Your task to perform on an android device: open a bookmark in the chrome app Image 0: 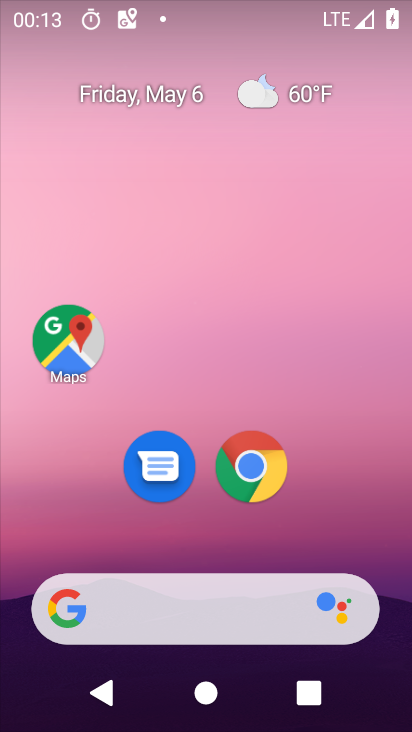
Step 0: click (247, 464)
Your task to perform on an android device: open a bookmark in the chrome app Image 1: 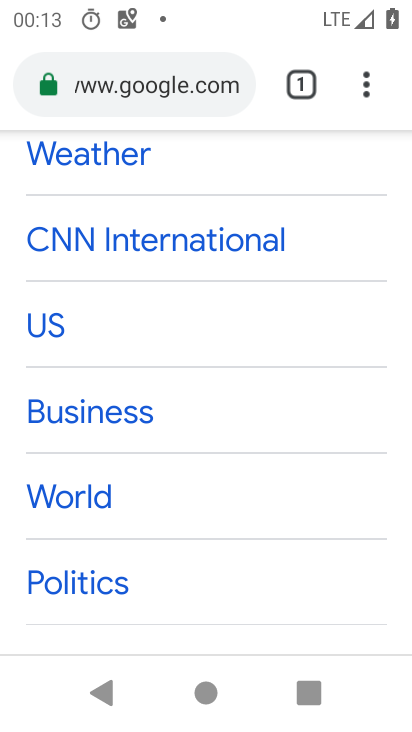
Step 1: click (367, 91)
Your task to perform on an android device: open a bookmark in the chrome app Image 2: 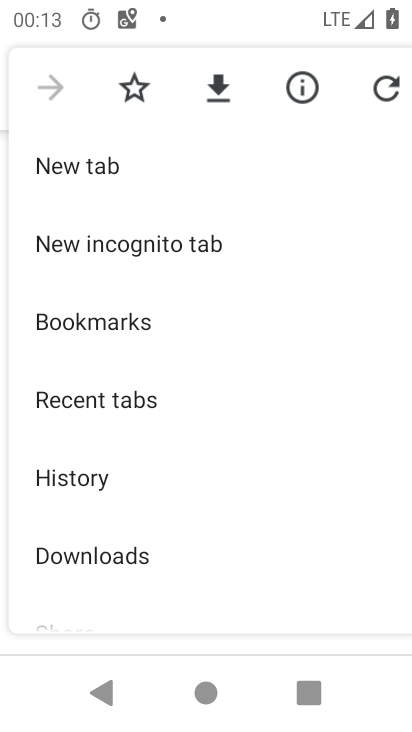
Step 2: click (116, 317)
Your task to perform on an android device: open a bookmark in the chrome app Image 3: 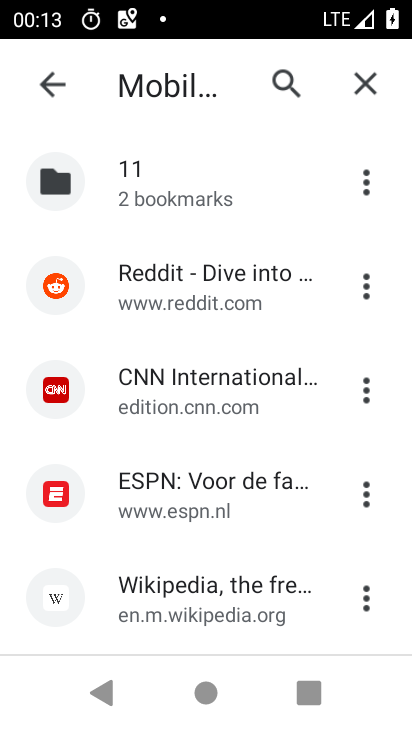
Step 3: task complete